Your task to perform on an android device: see sites visited before in the chrome app Image 0: 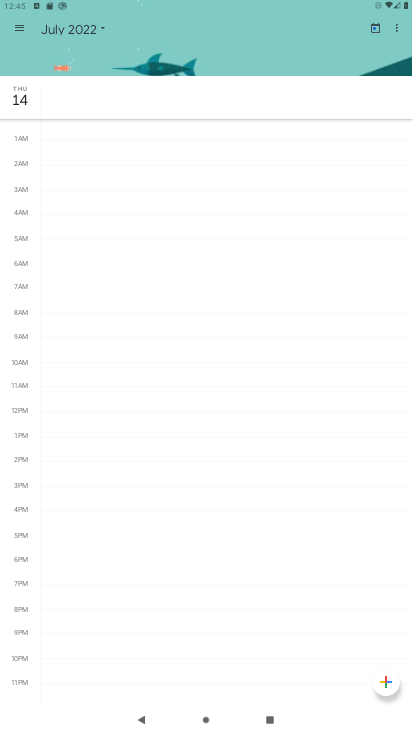
Step 0: press home button
Your task to perform on an android device: see sites visited before in the chrome app Image 1: 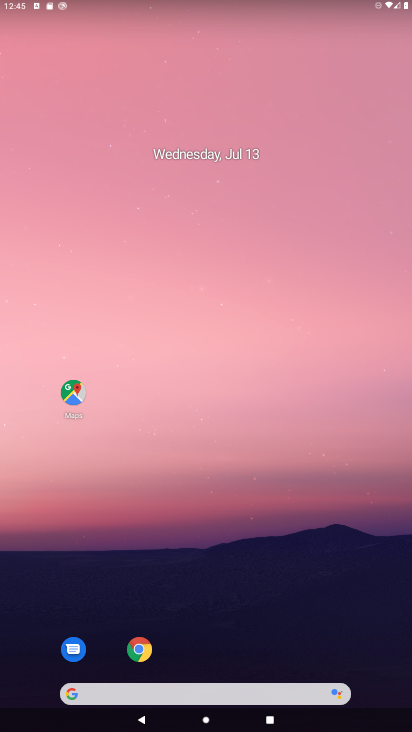
Step 1: click (142, 651)
Your task to perform on an android device: see sites visited before in the chrome app Image 2: 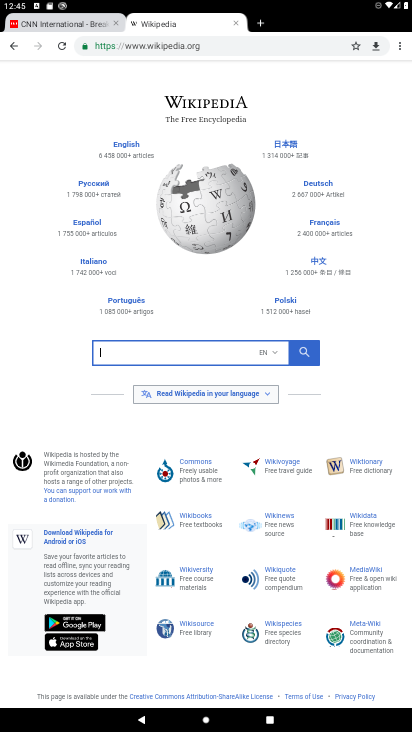
Step 2: click (398, 49)
Your task to perform on an android device: see sites visited before in the chrome app Image 3: 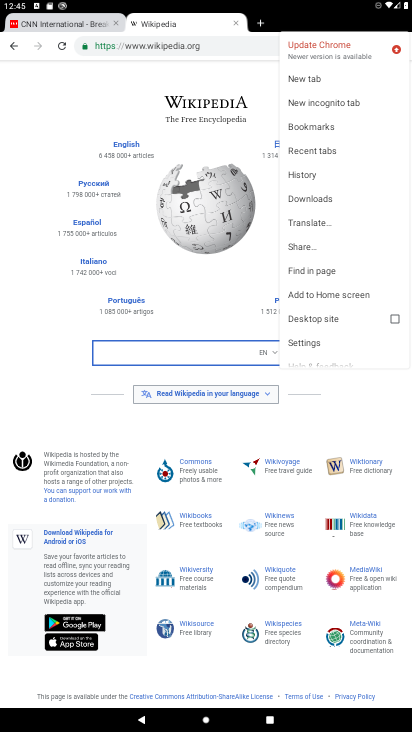
Step 3: click (299, 173)
Your task to perform on an android device: see sites visited before in the chrome app Image 4: 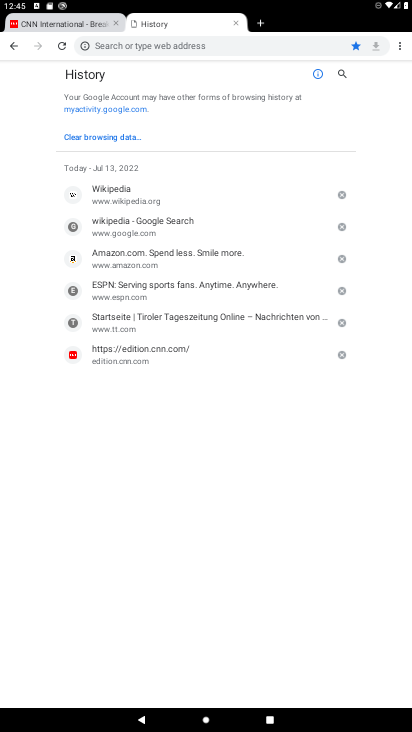
Step 4: task complete